Your task to perform on an android device: toggle wifi Image 0: 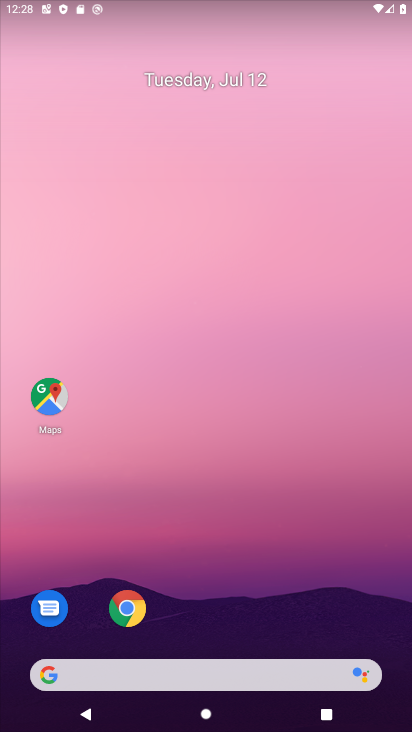
Step 0: drag from (248, 2) to (241, 621)
Your task to perform on an android device: toggle wifi Image 1: 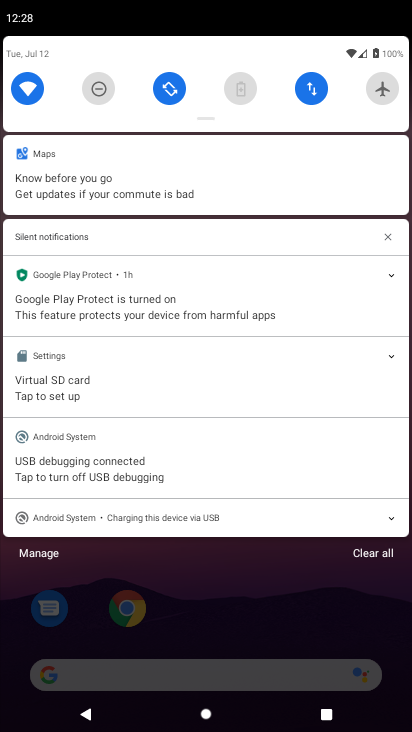
Step 1: click (26, 84)
Your task to perform on an android device: toggle wifi Image 2: 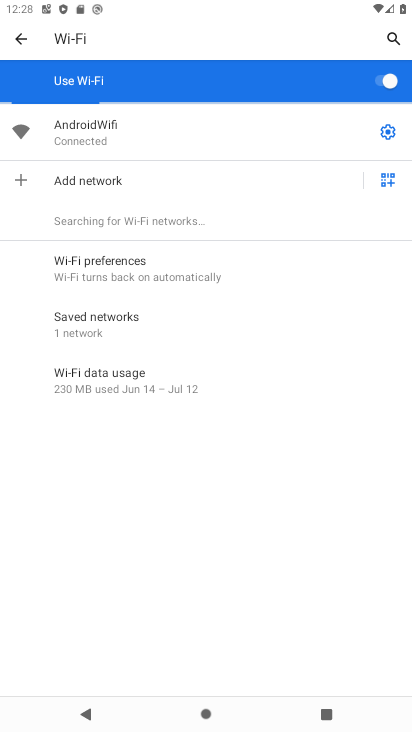
Step 2: click (384, 78)
Your task to perform on an android device: toggle wifi Image 3: 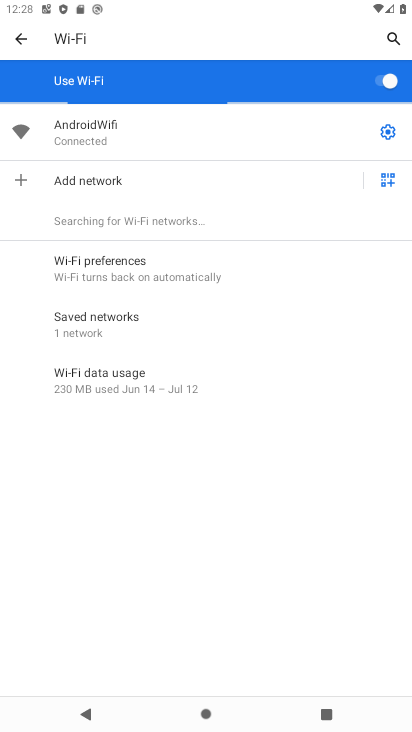
Step 3: click (384, 78)
Your task to perform on an android device: toggle wifi Image 4: 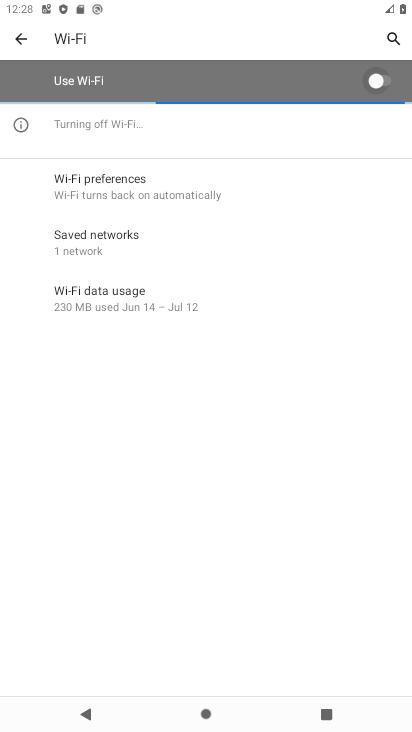
Step 4: click (384, 78)
Your task to perform on an android device: toggle wifi Image 5: 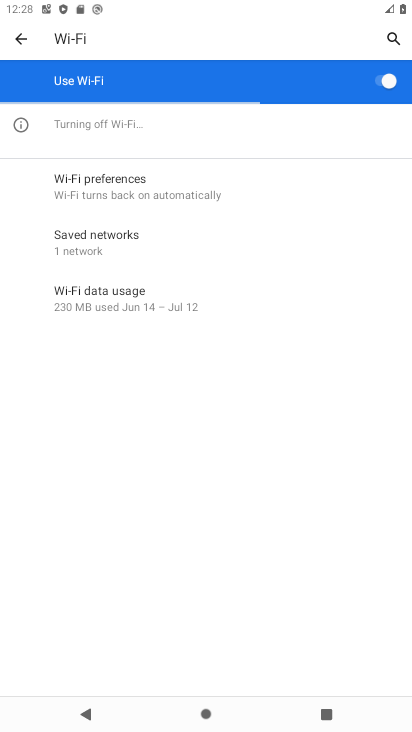
Step 5: click (384, 78)
Your task to perform on an android device: toggle wifi Image 6: 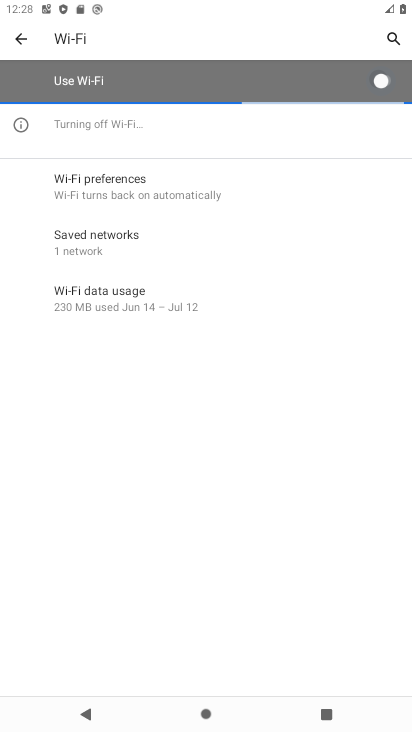
Step 6: click (384, 78)
Your task to perform on an android device: toggle wifi Image 7: 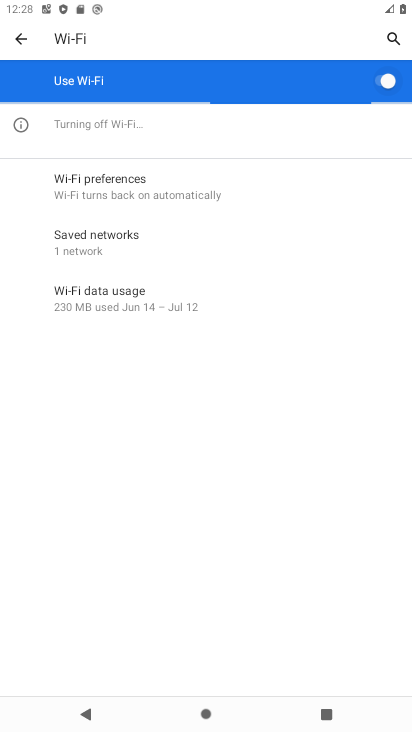
Step 7: click (384, 78)
Your task to perform on an android device: toggle wifi Image 8: 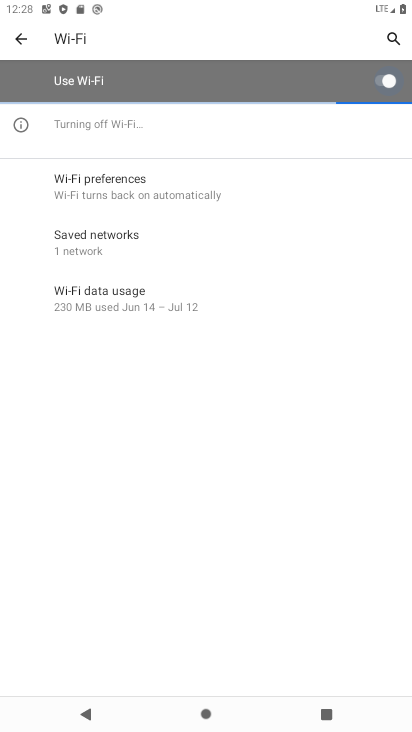
Step 8: click (384, 78)
Your task to perform on an android device: toggle wifi Image 9: 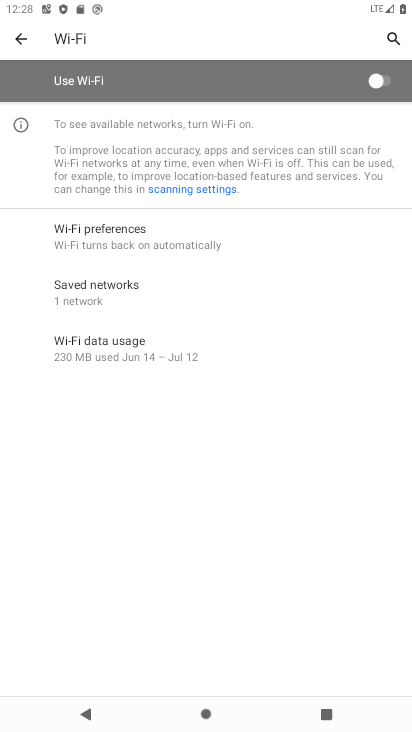
Step 9: click (384, 78)
Your task to perform on an android device: toggle wifi Image 10: 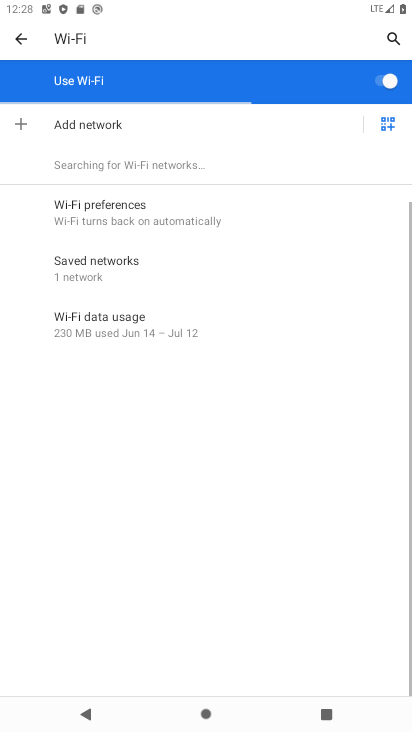
Step 10: task complete